Your task to perform on an android device: Do I have any events tomorrow? Image 0: 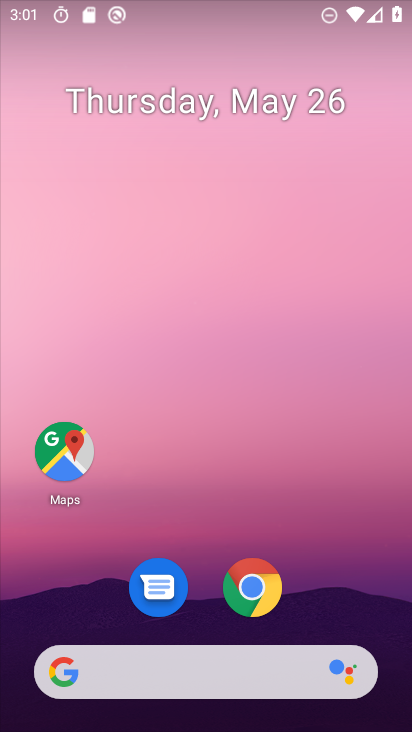
Step 0: drag from (349, 510) to (292, 55)
Your task to perform on an android device: Do I have any events tomorrow? Image 1: 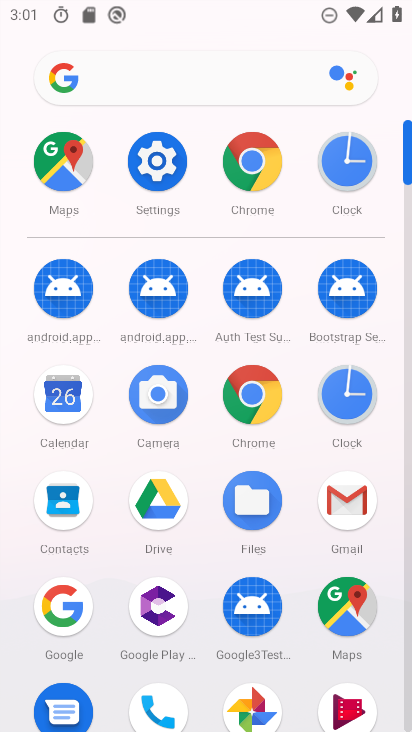
Step 1: click (43, 401)
Your task to perform on an android device: Do I have any events tomorrow? Image 2: 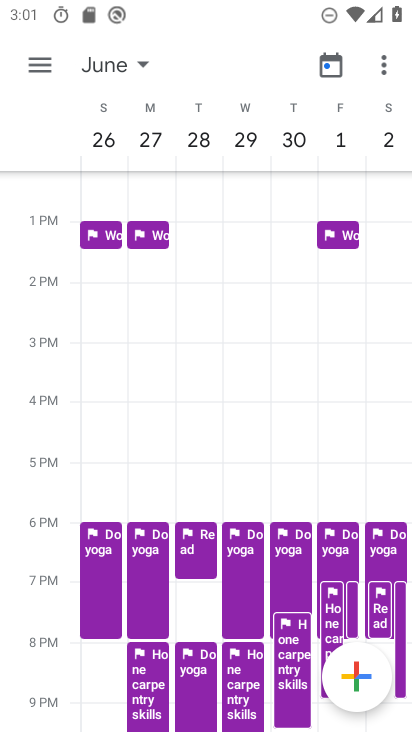
Step 2: click (126, 69)
Your task to perform on an android device: Do I have any events tomorrow? Image 3: 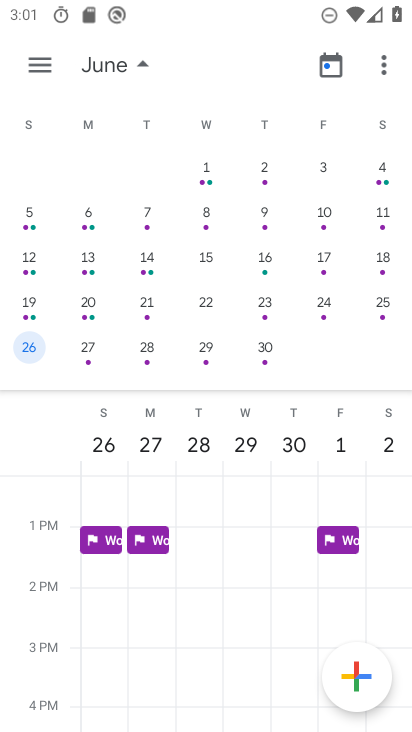
Step 3: drag from (38, 269) to (358, 312)
Your task to perform on an android device: Do I have any events tomorrow? Image 4: 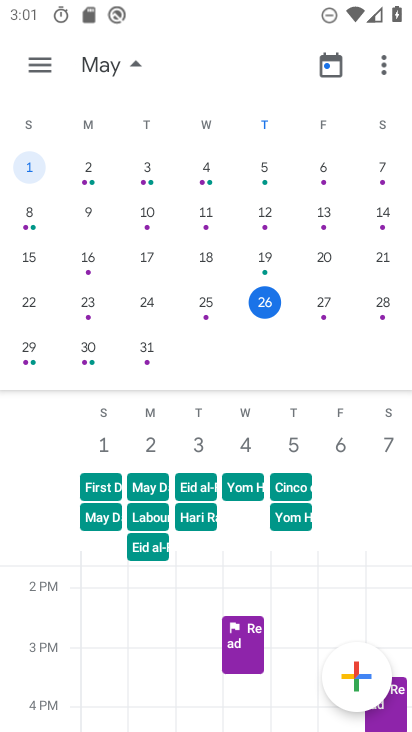
Step 4: click (257, 299)
Your task to perform on an android device: Do I have any events tomorrow? Image 5: 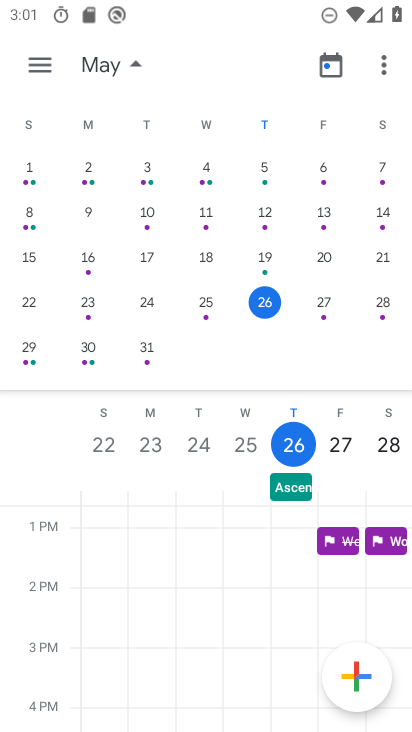
Step 5: drag from (286, 438) to (305, 134)
Your task to perform on an android device: Do I have any events tomorrow? Image 6: 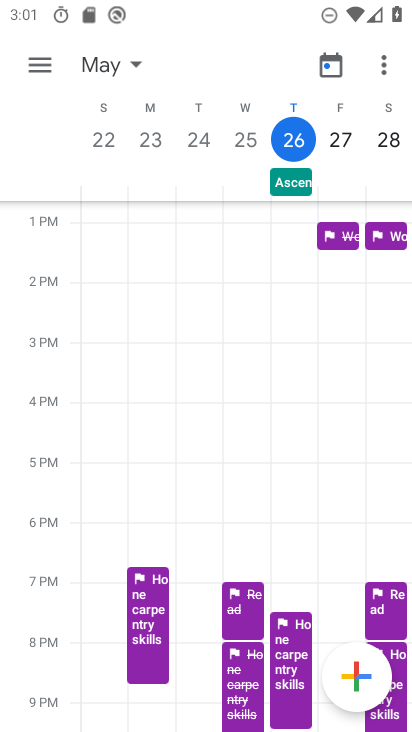
Step 6: click (331, 136)
Your task to perform on an android device: Do I have any events tomorrow? Image 7: 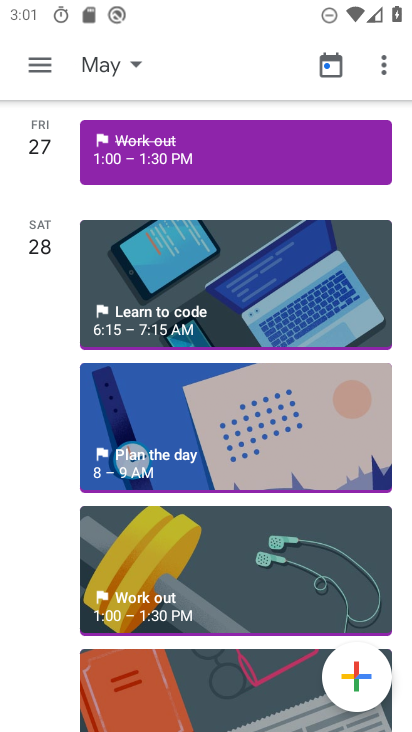
Step 7: task complete